Your task to perform on an android device: Show me recent news Image 0: 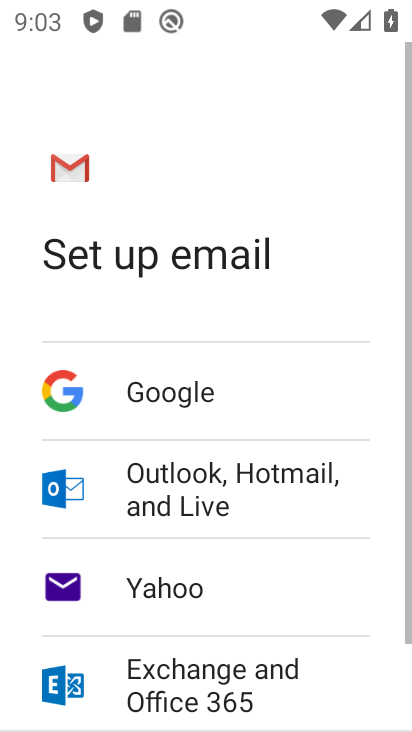
Step 0: press home button
Your task to perform on an android device: Show me recent news Image 1: 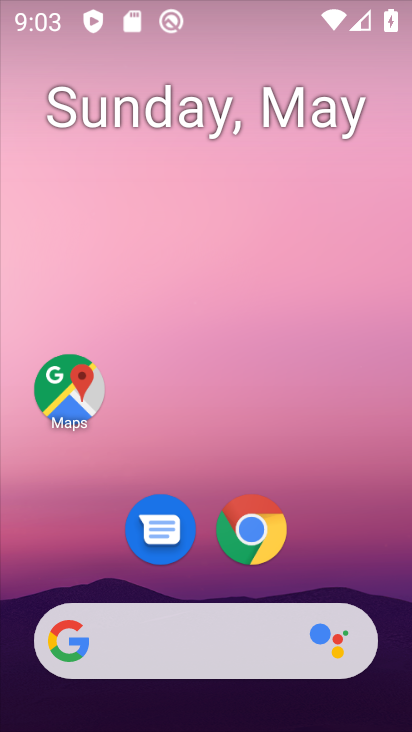
Step 1: drag from (311, 553) to (390, 88)
Your task to perform on an android device: Show me recent news Image 2: 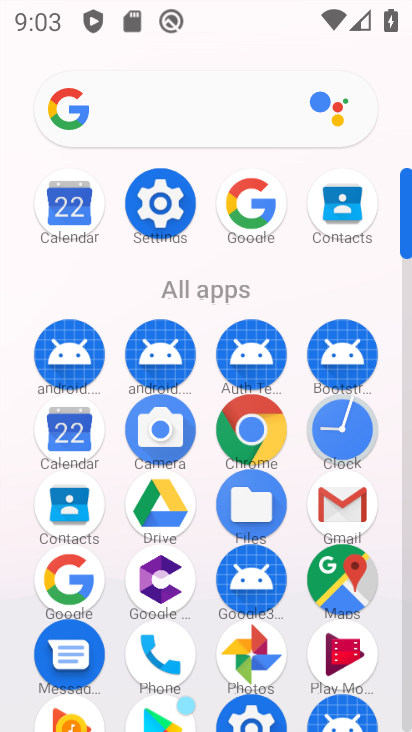
Step 2: click (244, 202)
Your task to perform on an android device: Show me recent news Image 3: 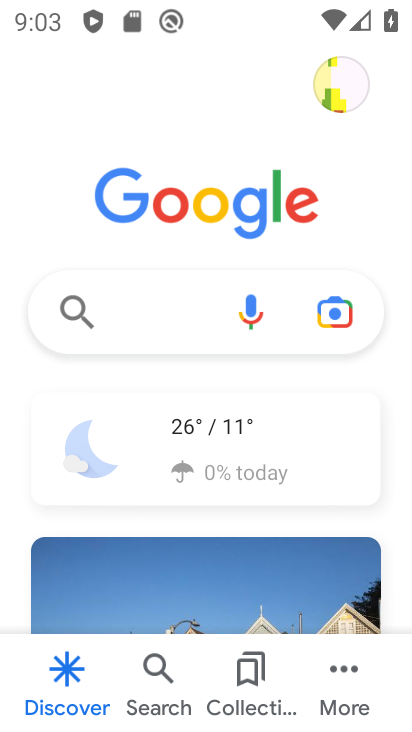
Step 3: click (141, 319)
Your task to perform on an android device: Show me recent news Image 4: 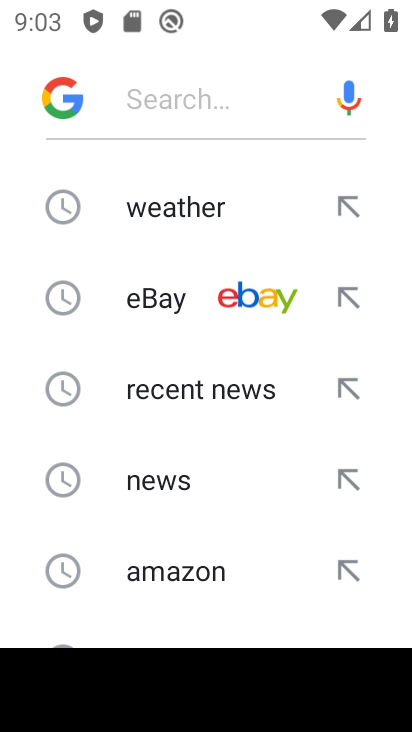
Step 4: click (153, 393)
Your task to perform on an android device: Show me recent news Image 5: 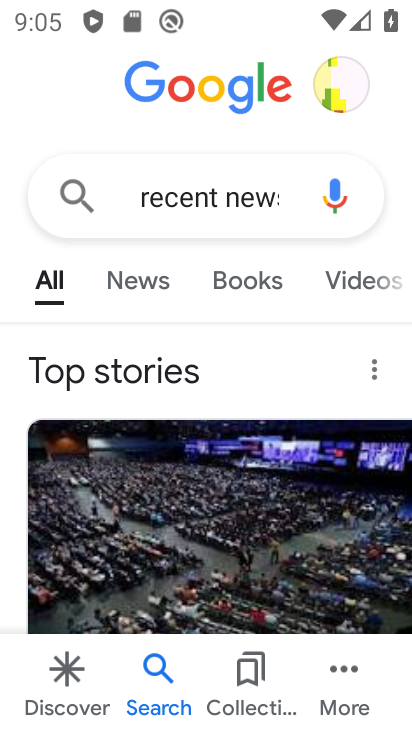
Step 5: task complete